Your task to perform on an android device: toggle javascript in the chrome app Image 0: 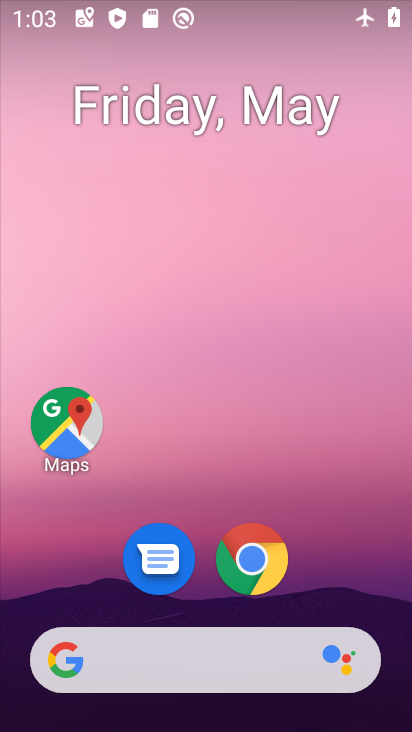
Step 0: drag from (348, 561) to (212, 116)
Your task to perform on an android device: toggle javascript in the chrome app Image 1: 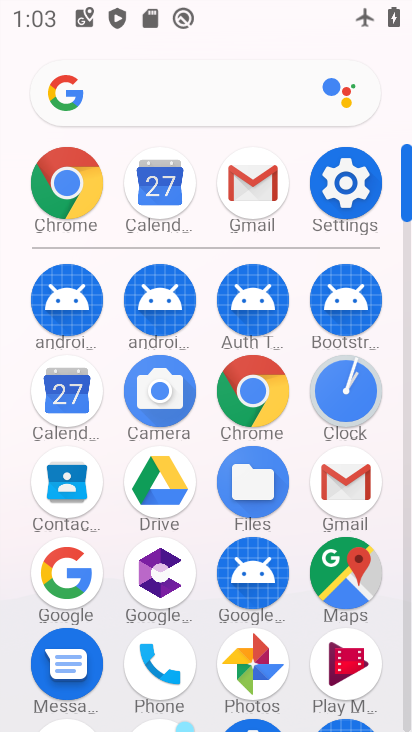
Step 1: click (68, 186)
Your task to perform on an android device: toggle javascript in the chrome app Image 2: 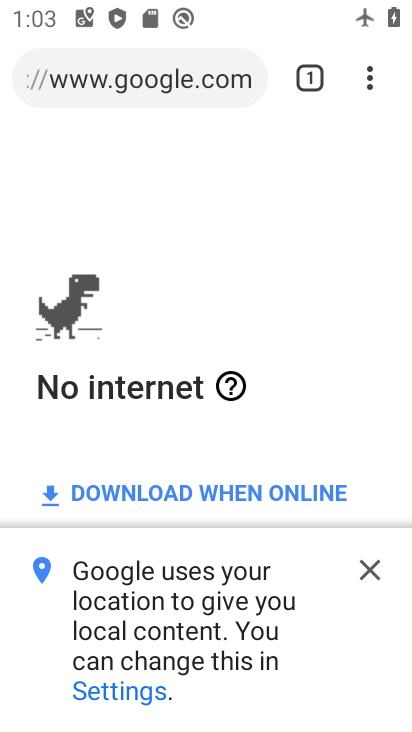
Step 2: drag from (375, 75) to (166, 615)
Your task to perform on an android device: toggle javascript in the chrome app Image 3: 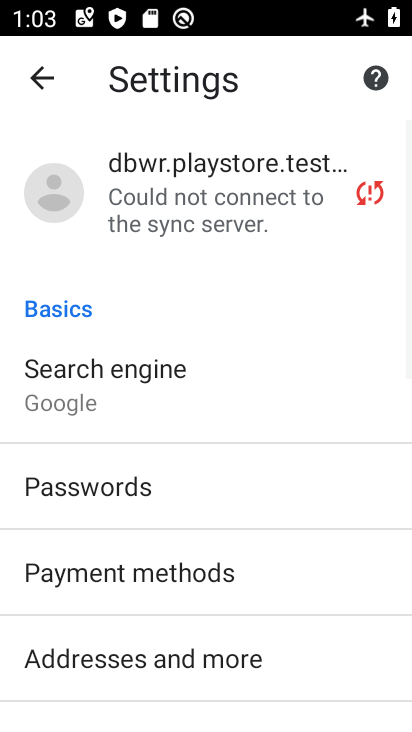
Step 3: drag from (181, 539) to (152, 141)
Your task to perform on an android device: toggle javascript in the chrome app Image 4: 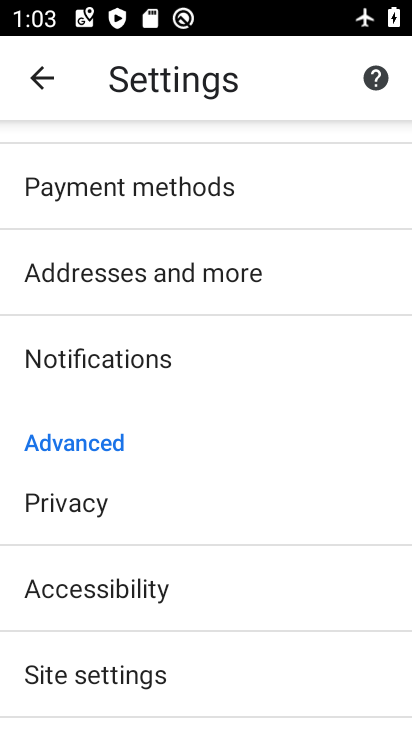
Step 4: drag from (176, 563) to (158, 233)
Your task to perform on an android device: toggle javascript in the chrome app Image 5: 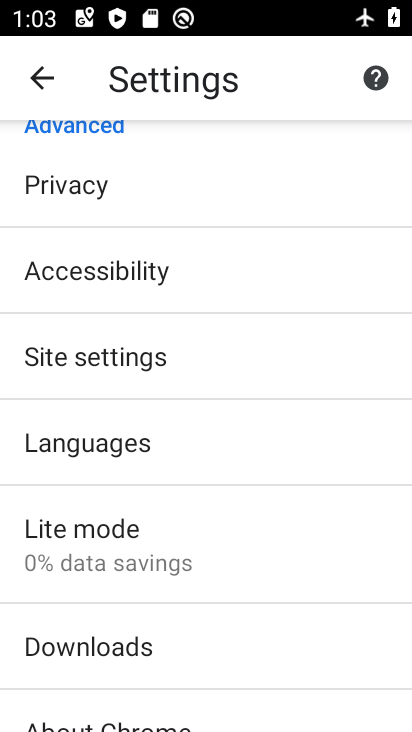
Step 5: click (133, 364)
Your task to perform on an android device: toggle javascript in the chrome app Image 6: 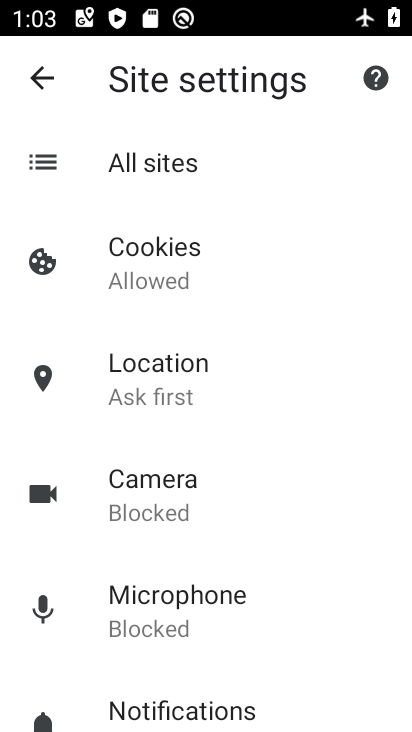
Step 6: drag from (242, 469) to (196, 106)
Your task to perform on an android device: toggle javascript in the chrome app Image 7: 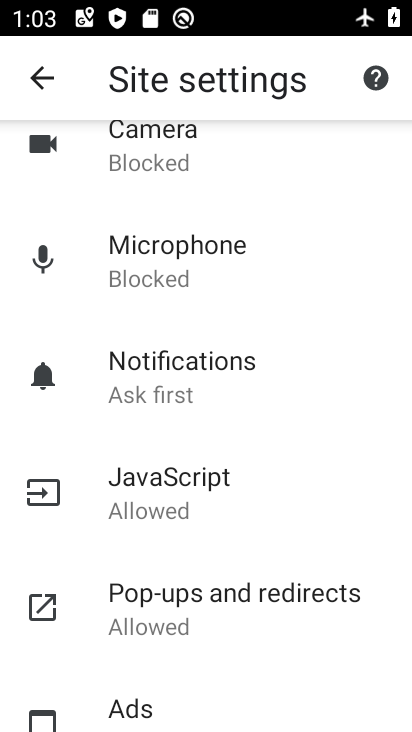
Step 7: click (160, 493)
Your task to perform on an android device: toggle javascript in the chrome app Image 8: 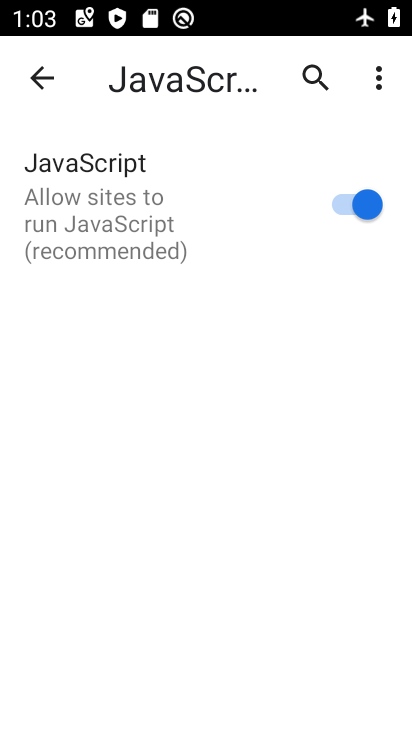
Step 8: click (346, 188)
Your task to perform on an android device: toggle javascript in the chrome app Image 9: 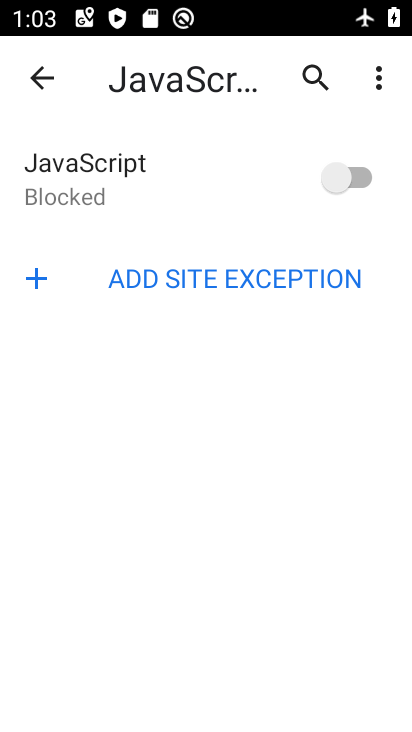
Step 9: task complete